Your task to perform on an android device: turn off airplane mode Image 0: 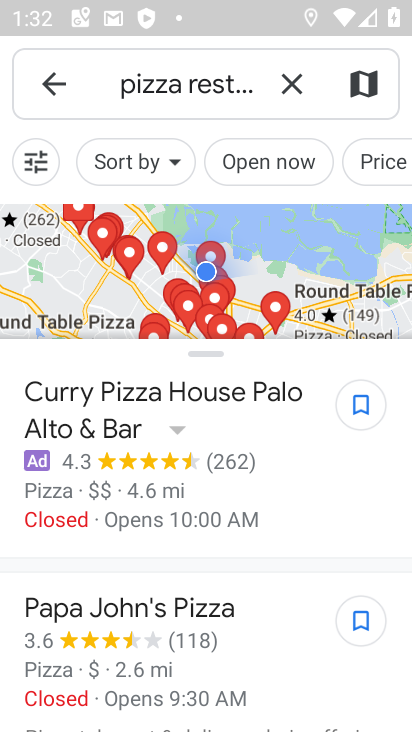
Step 0: press home button
Your task to perform on an android device: turn off airplane mode Image 1: 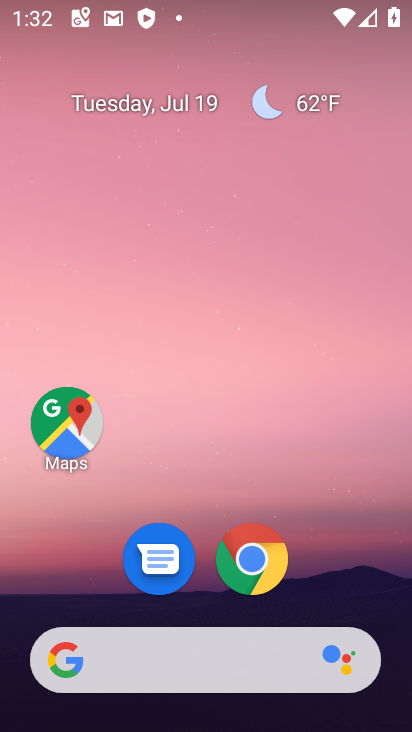
Step 1: drag from (242, 662) to (136, 218)
Your task to perform on an android device: turn off airplane mode Image 2: 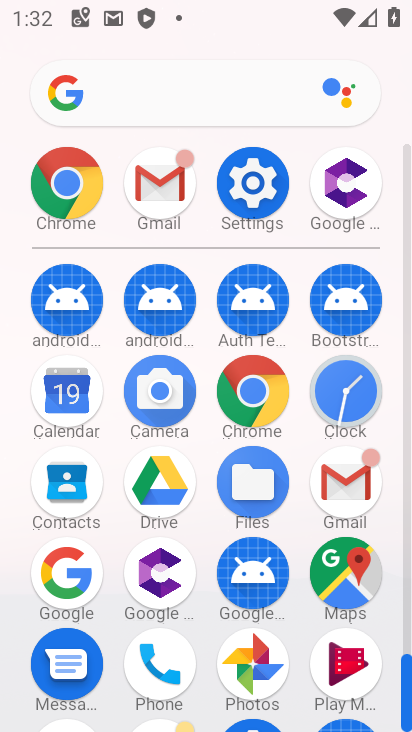
Step 2: click (258, 197)
Your task to perform on an android device: turn off airplane mode Image 3: 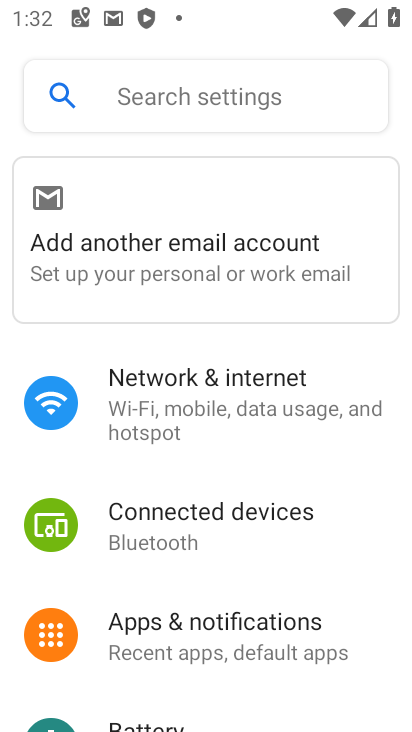
Step 3: click (240, 398)
Your task to perform on an android device: turn off airplane mode Image 4: 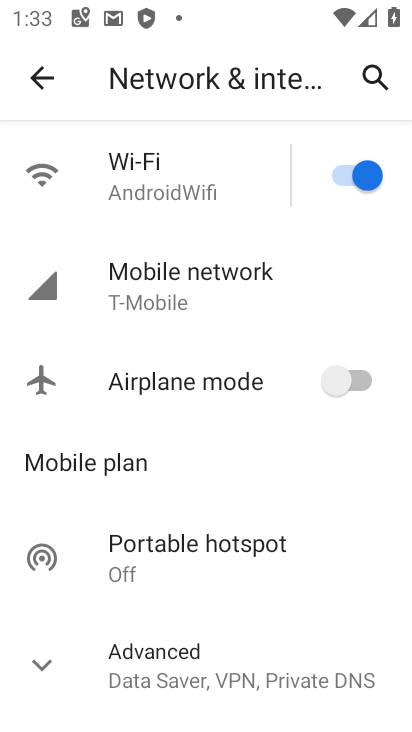
Step 4: task complete